Your task to perform on an android device: uninstall "DuckDuckGo Privacy Browser" Image 0: 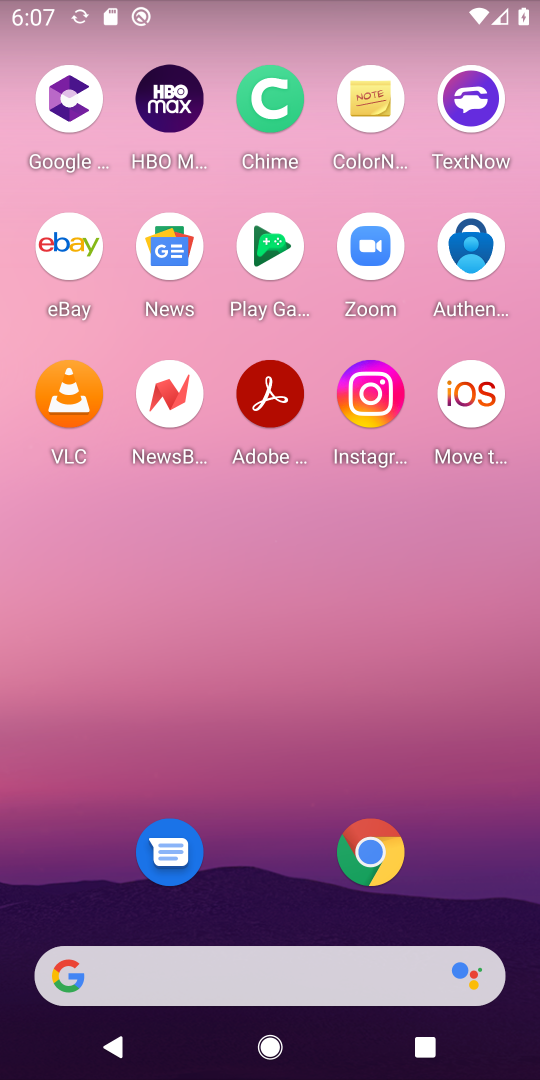
Step 0: drag from (233, 965) to (287, 53)
Your task to perform on an android device: uninstall "DuckDuckGo Privacy Browser" Image 1: 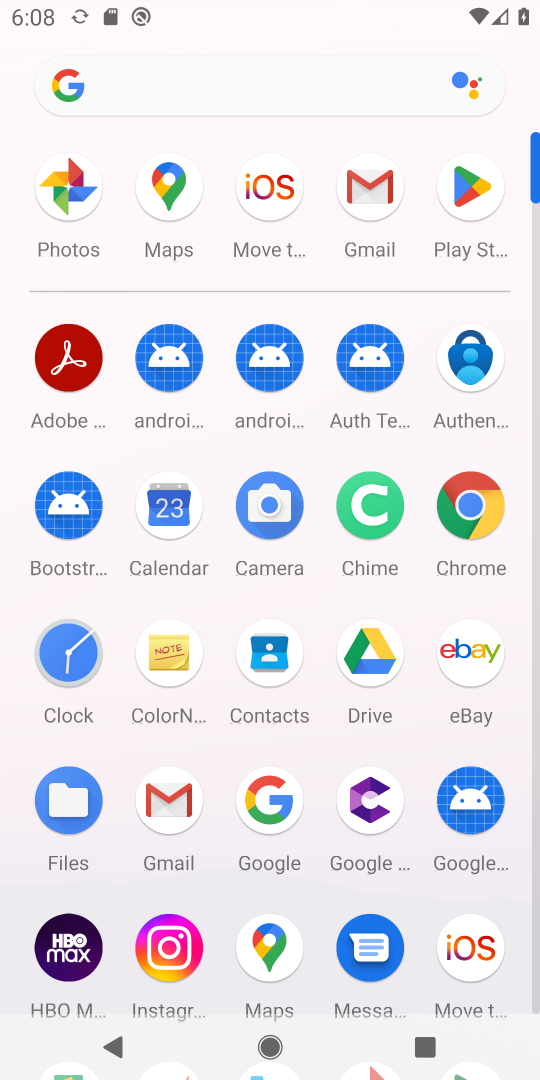
Step 1: click (468, 189)
Your task to perform on an android device: uninstall "DuckDuckGo Privacy Browser" Image 2: 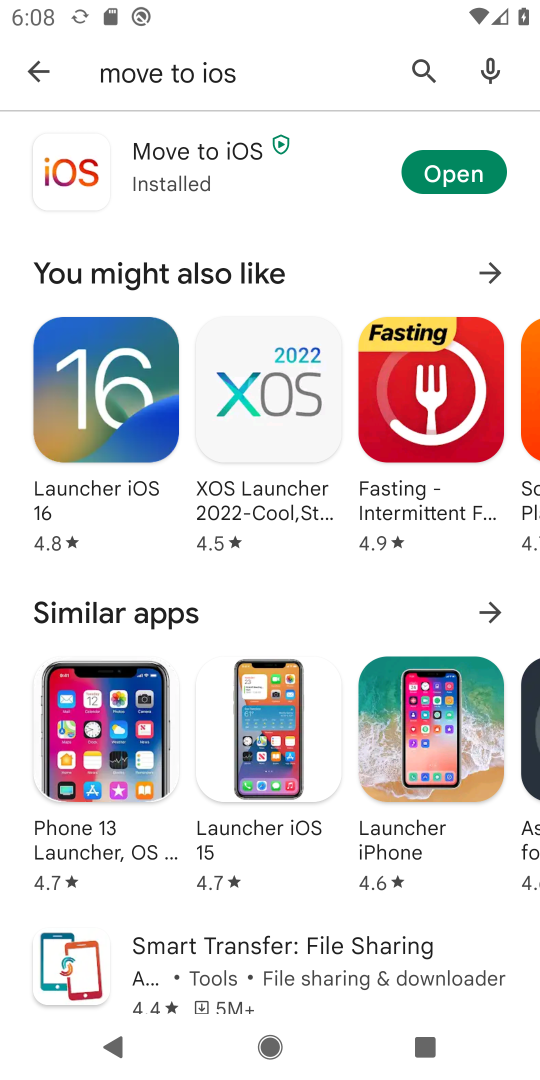
Step 2: press back button
Your task to perform on an android device: uninstall "DuckDuckGo Privacy Browser" Image 3: 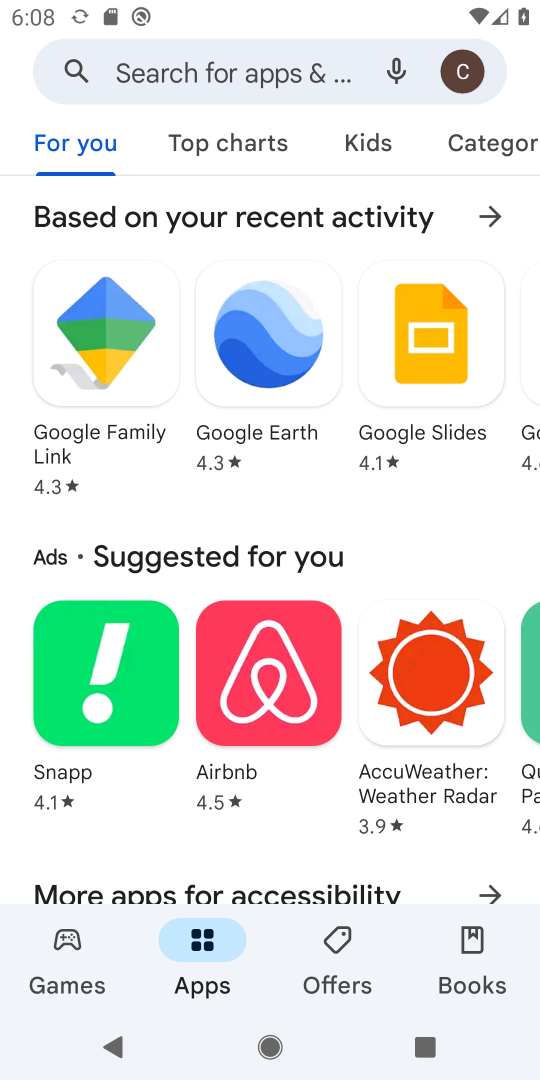
Step 3: click (238, 73)
Your task to perform on an android device: uninstall "DuckDuckGo Privacy Browser" Image 4: 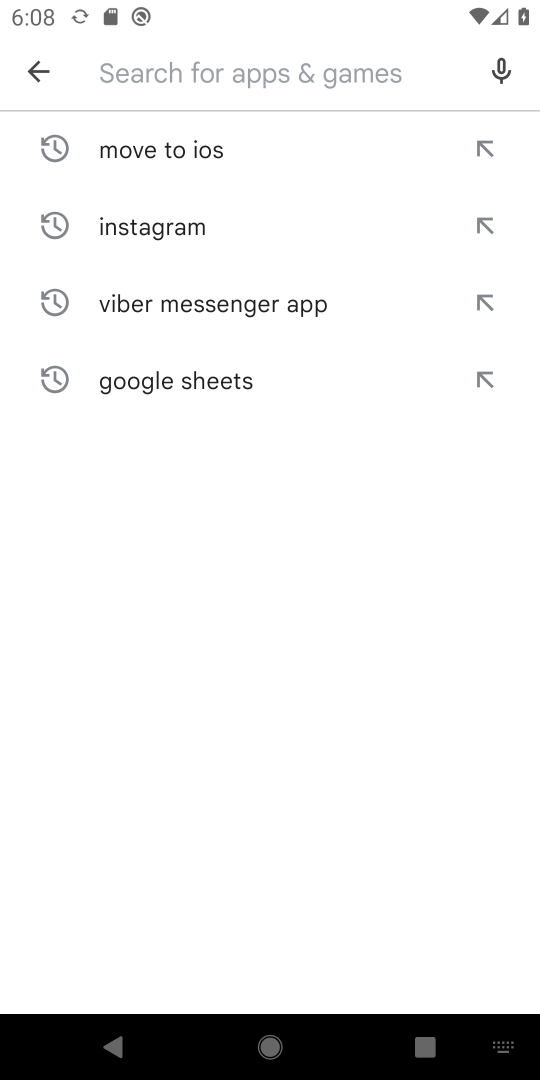
Step 4: type "DuckDuckGo Privacy Browser"
Your task to perform on an android device: uninstall "DuckDuckGo Privacy Browser" Image 5: 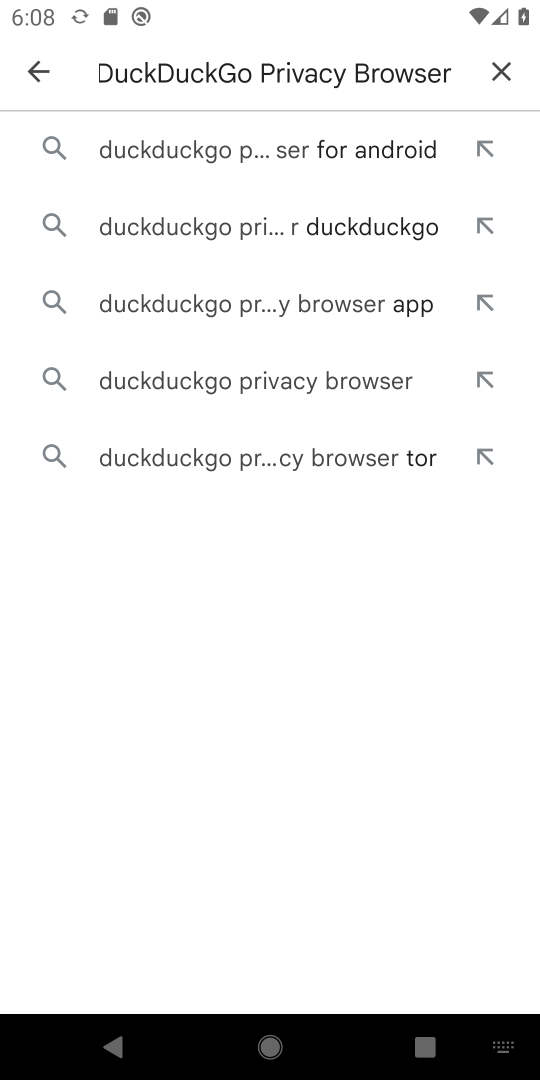
Step 5: click (267, 160)
Your task to perform on an android device: uninstall "DuckDuckGo Privacy Browser" Image 6: 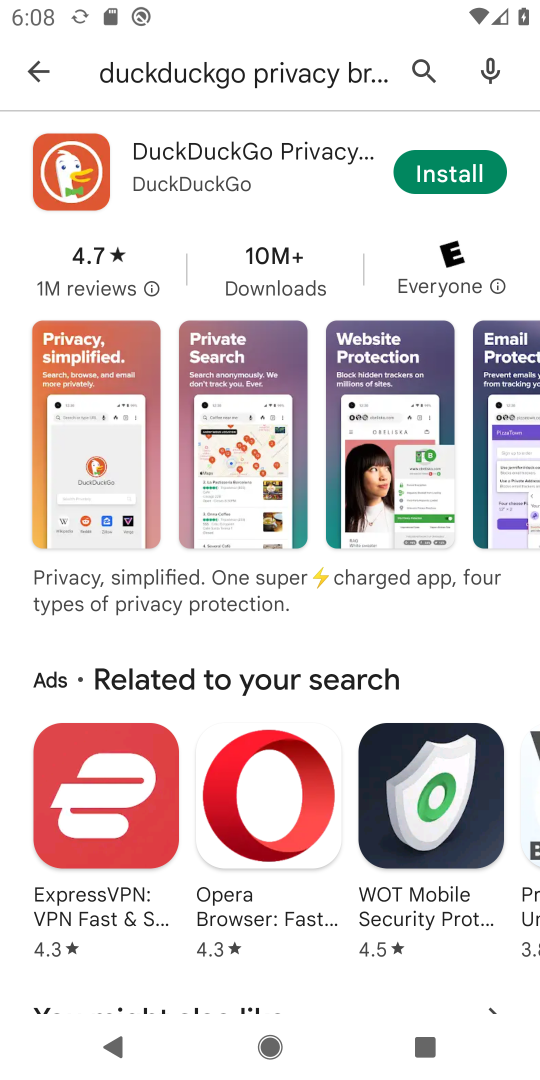
Step 6: task complete